Your task to perform on an android device: set the stopwatch Image 0: 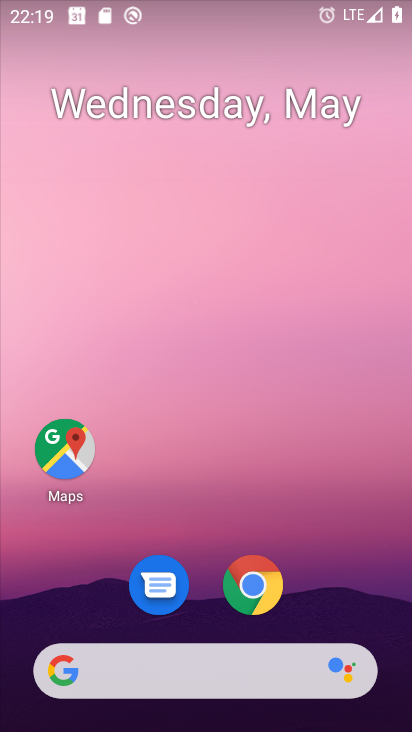
Step 0: drag from (325, 495) to (264, 41)
Your task to perform on an android device: set the stopwatch Image 1: 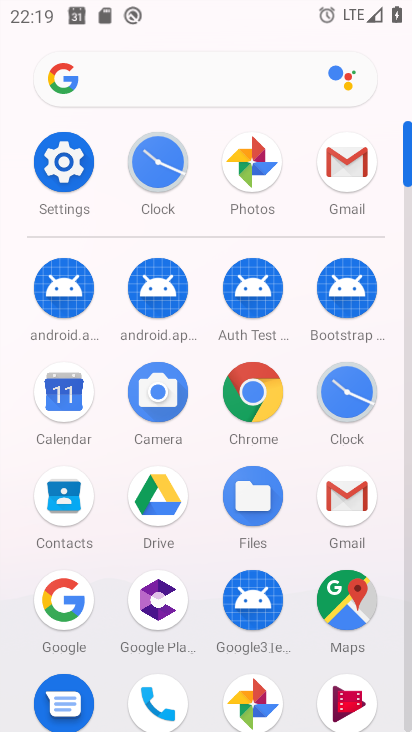
Step 1: click (338, 383)
Your task to perform on an android device: set the stopwatch Image 2: 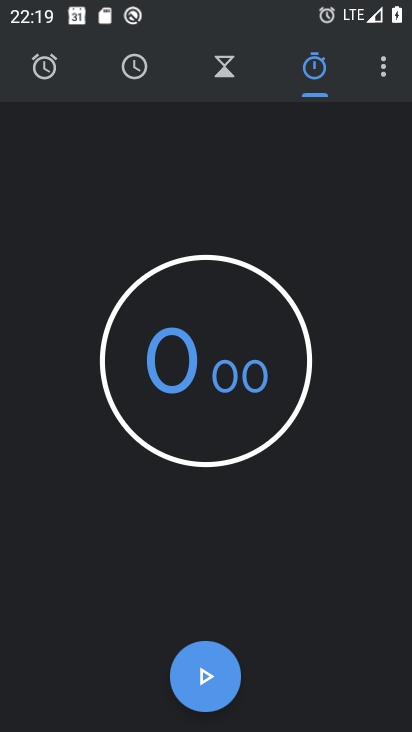
Step 2: task complete